Your task to perform on an android device: Check the news Image 0: 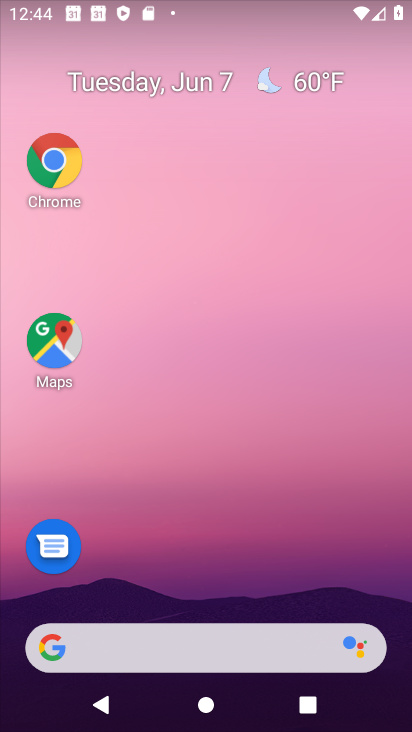
Step 0: drag from (187, 607) to (311, 1)
Your task to perform on an android device: Check the news Image 1: 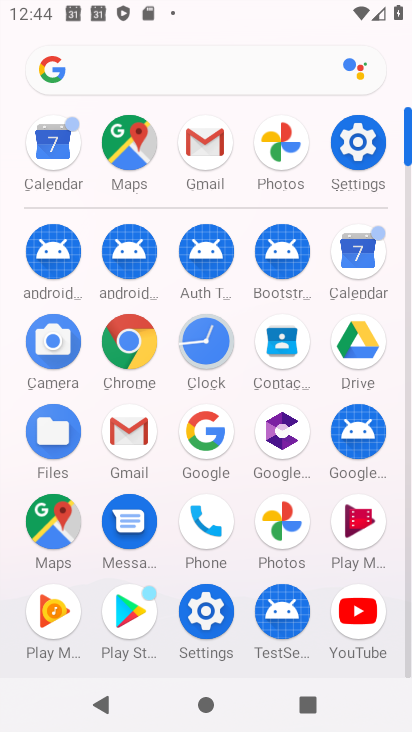
Step 1: click (216, 63)
Your task to perform on an android device: Check the news Image 2: 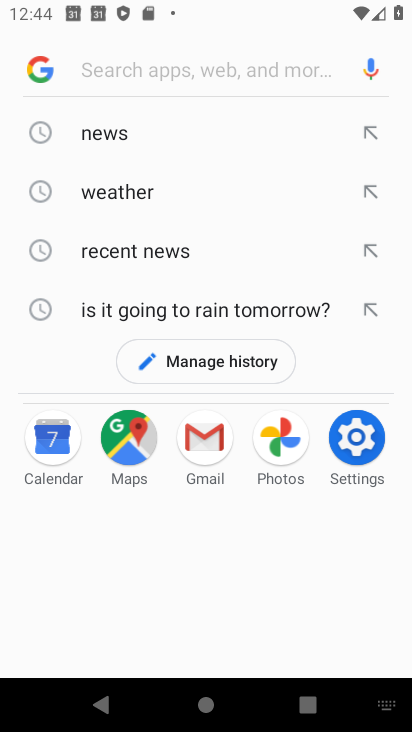
Step 2: click (161, 131)
Your task to perform on an android device: Check the news Image 3: 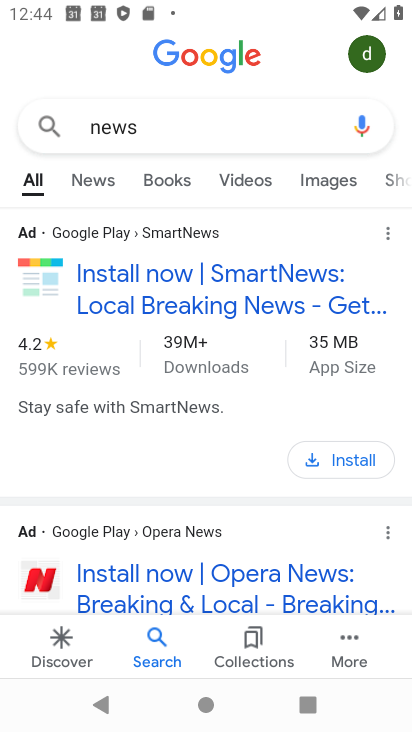
Step 3: task complete